Your task to perform on an android device: Open network settings Image 0: 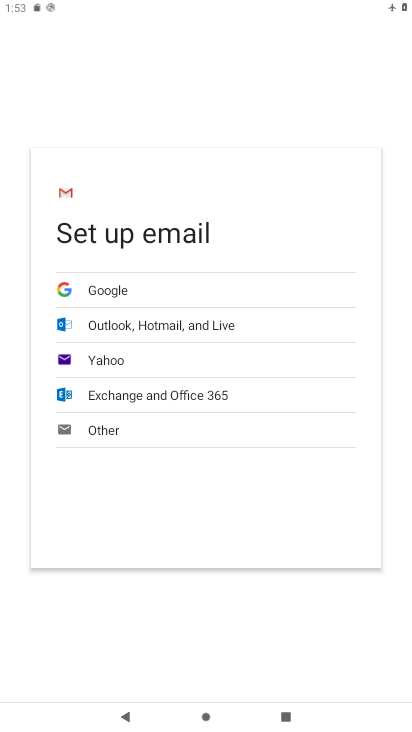
Step 0: press home button
Your task to perform on an android device: Open network settings Image 1: 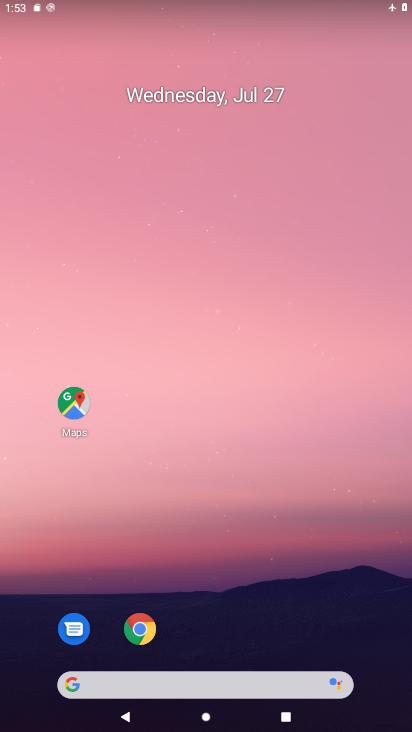
Step 1: drag from (259, 598) to (183, 43)
Your task to perform on an android device: Open network settings Image 2: 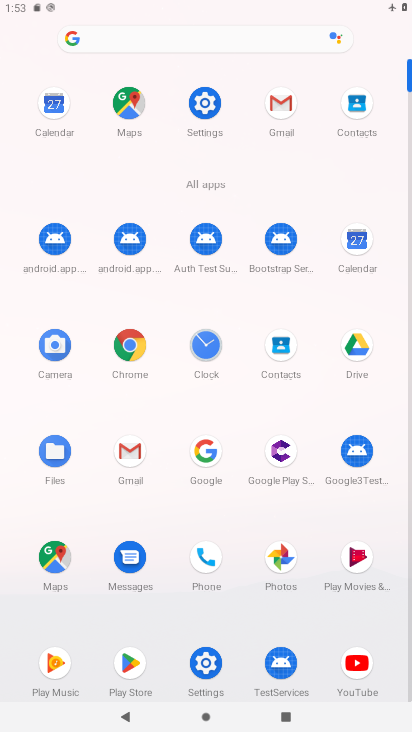
Step 2: click (201, 92)
Your task to perform on an android device: Open network settings Image 3: 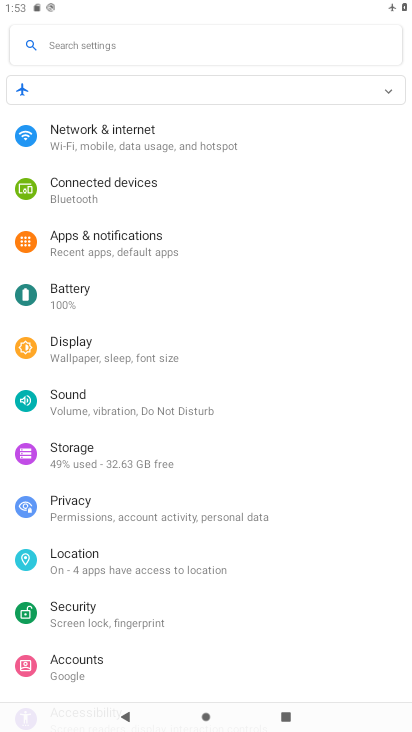
Step 3: click (146, 139)
Your task to perform on an android device: Open network settings Image 4: 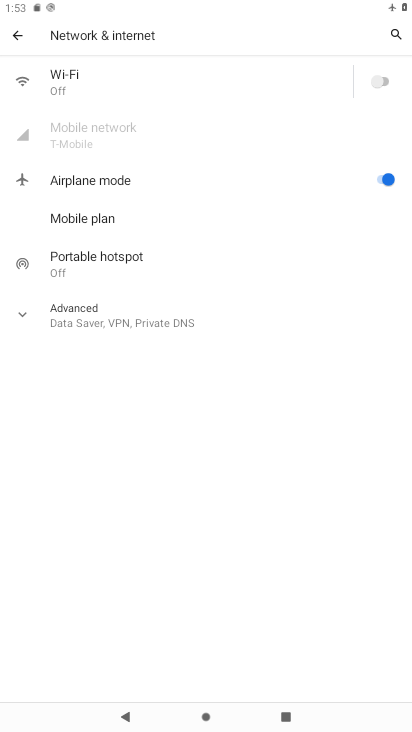
Step 4: click (156, 138)
Your task to perform on an android device: Open network settings Image 5: 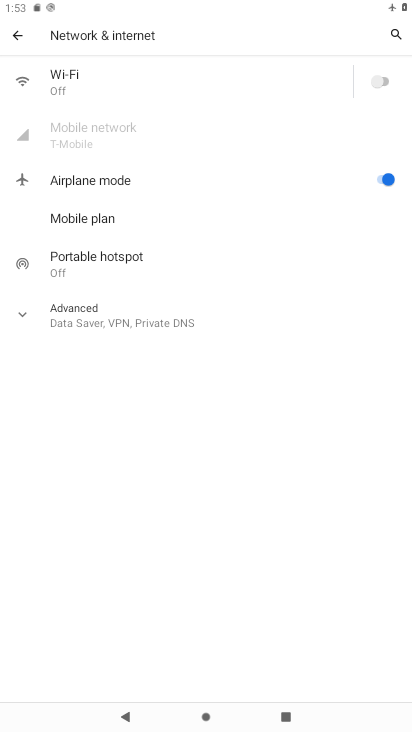
Step 5: task complete